Your task to perform on an android device: allow notifications from all sites in the chrome app Image 0: 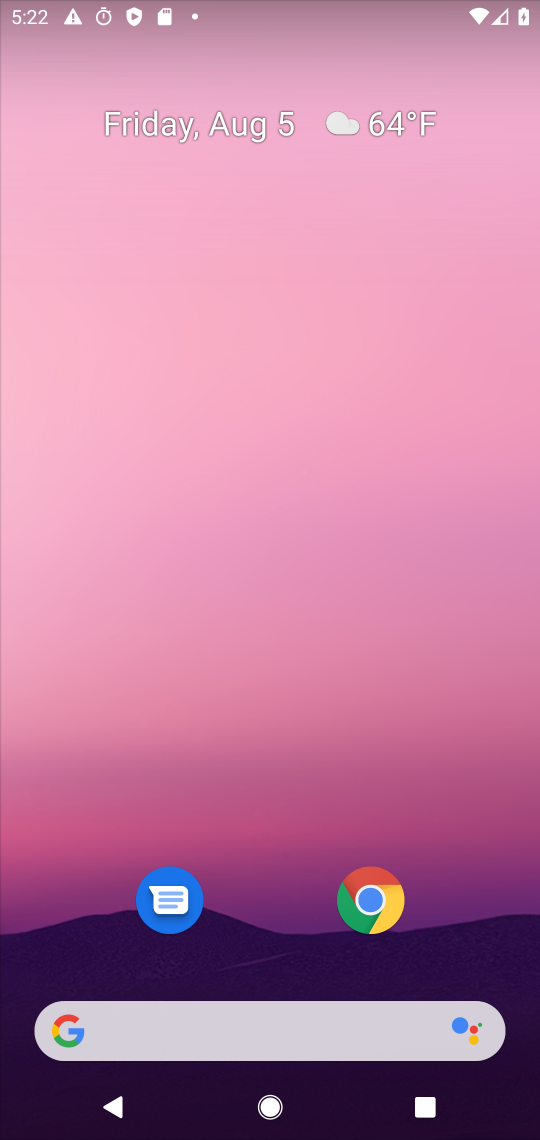
Step 0: drag from (228, 888) to (247, 58)
Your task to perform on an android device: allow notifications from all sites in the chrome app Image 1: 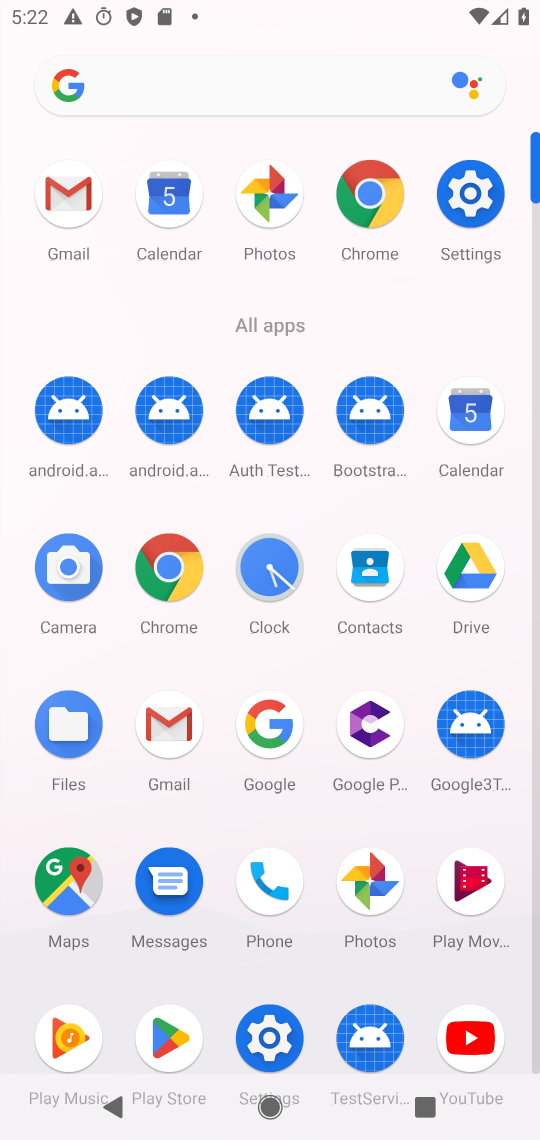
Step 1: click (378, 207)
Your task to perform on an android device: allow notifications from all sites in the chrome app Image 2: 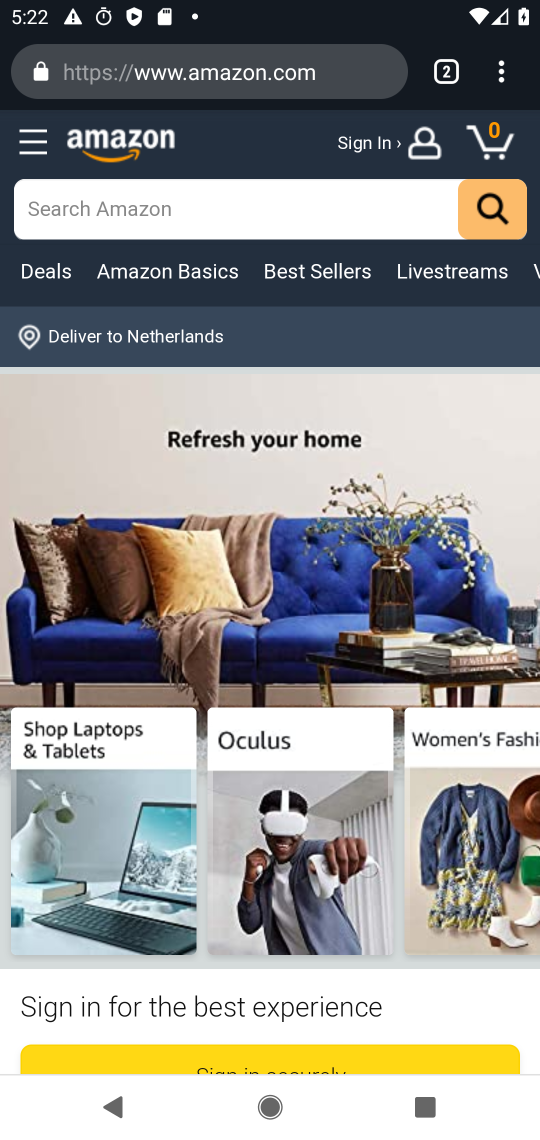
Step 2: drag from (496, 74) to (262, 869)
Your task to perform on an android device: allow notifications from all sites in the chrome app Image 3: 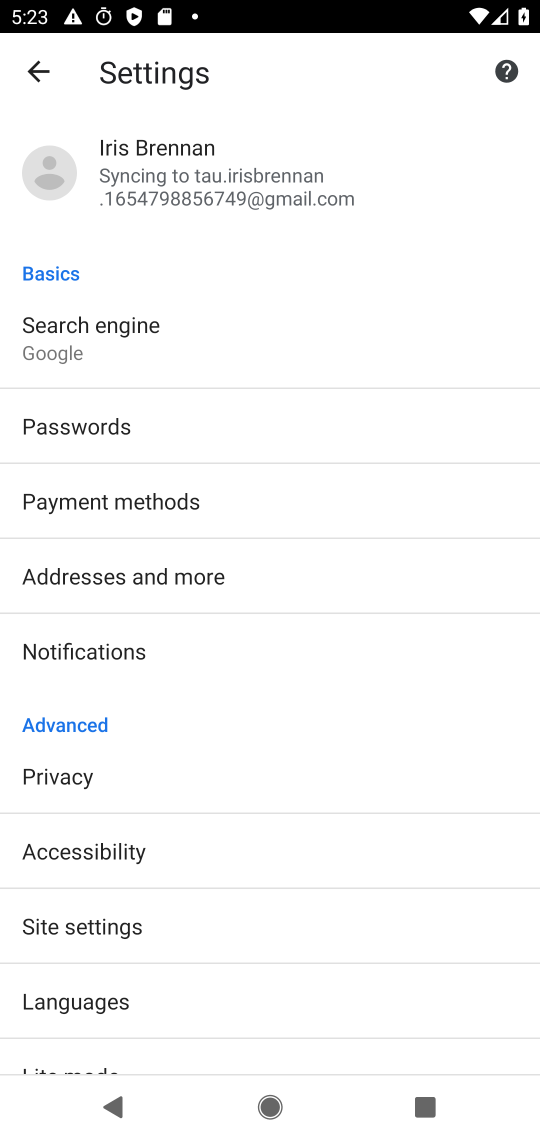
Step 3: click (163, 925)
Your task to perform on an android device: allow notifications from all sites in the chrome app Image 4: 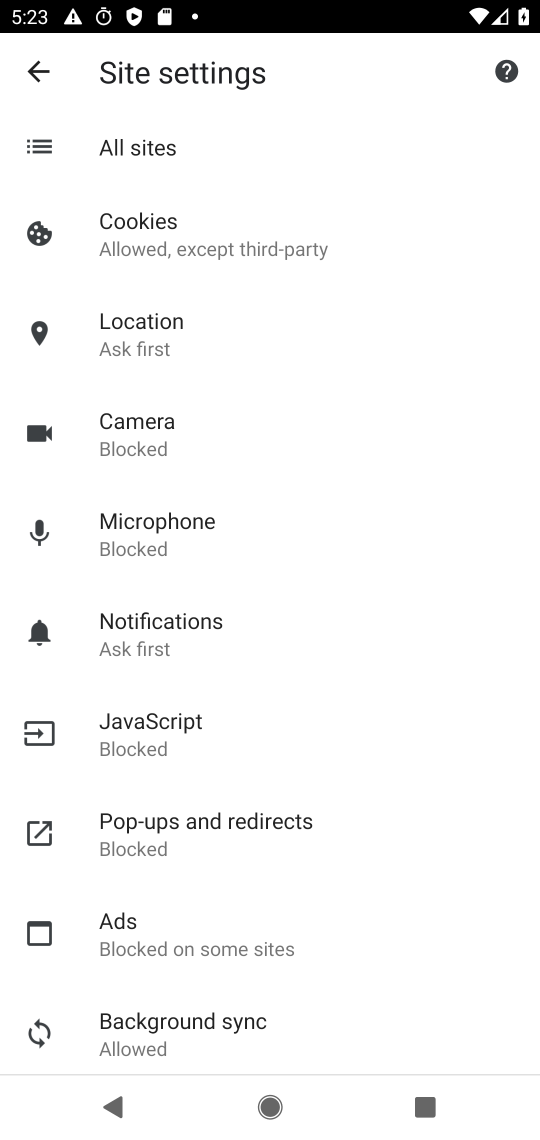
Step 4: click (192, 634)
Your task to perform on an android device: allow notifications from all sites in the chrome app Image 5: 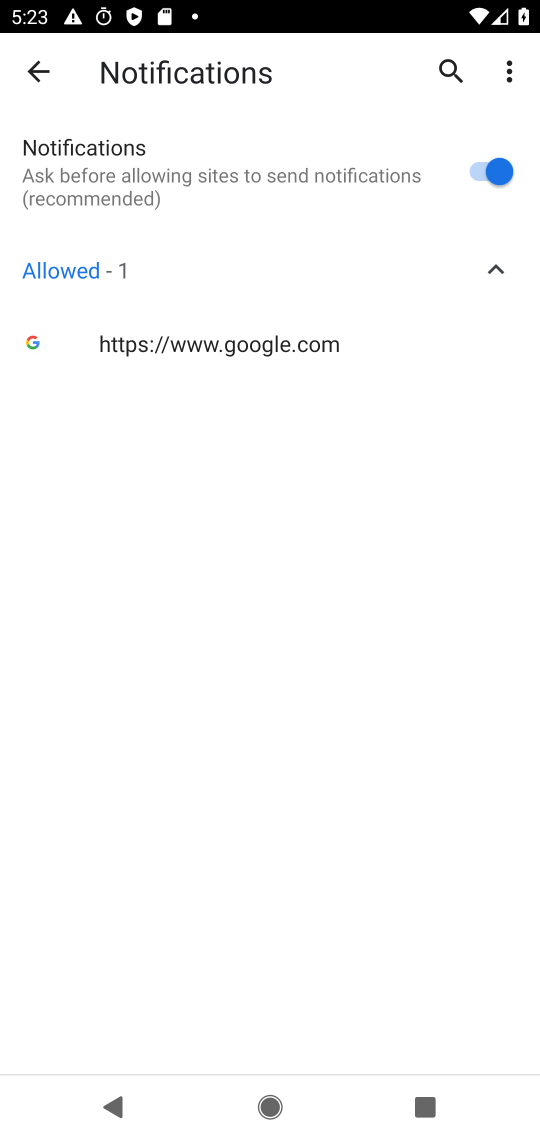
Step 5: task complete